Your task to perform on an android device: turn on airplane mode Image 0: 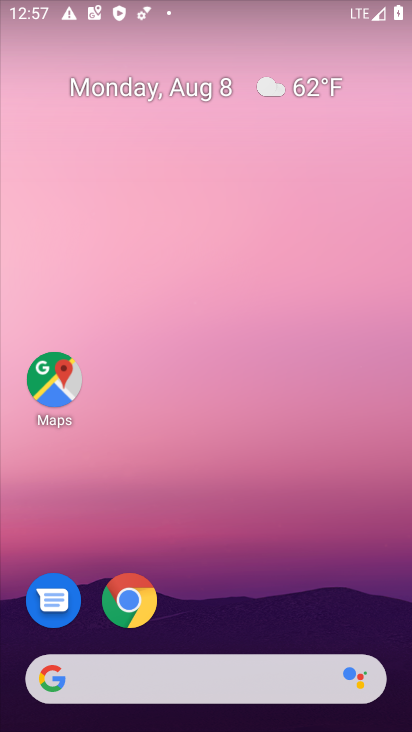
Step 0: drag from (222, 551) to (226, 227)
Your task to perform on an android device: turn on airplane mode Image 1: 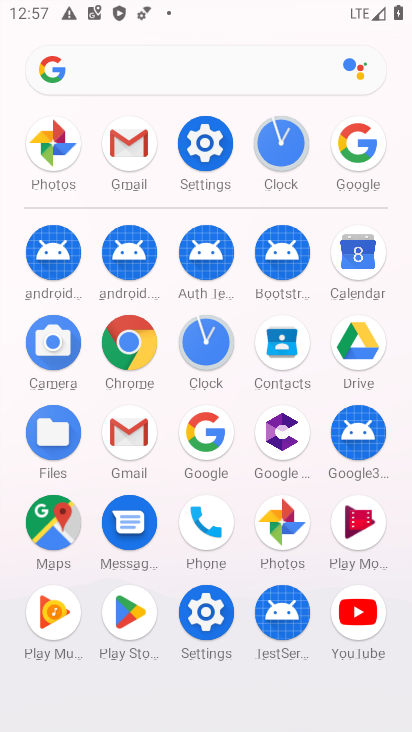
Step 1: click (207, 158)
Your task to perform on an android device: turn on airplane mode Image 2: 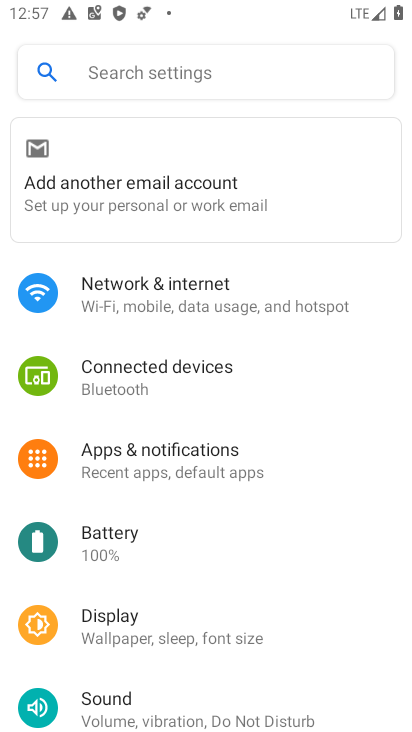
Step 2: click (188, 296)
Your task to perform on an android device: turn on airplane mode Image 3: 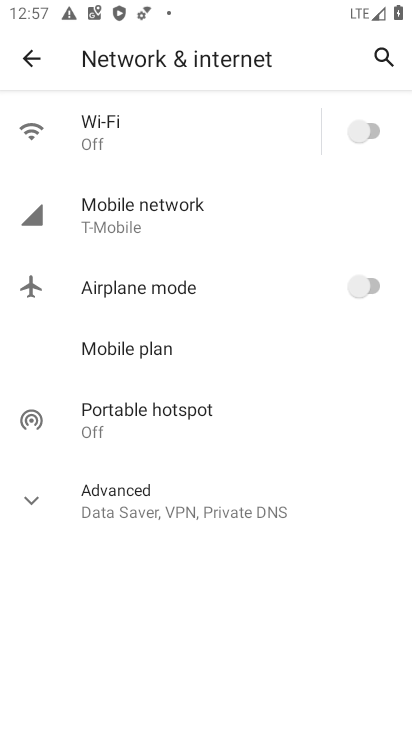
Step 3: click (365, 272)
Your task to perform on an android device: turn on airplane mode Image 4: 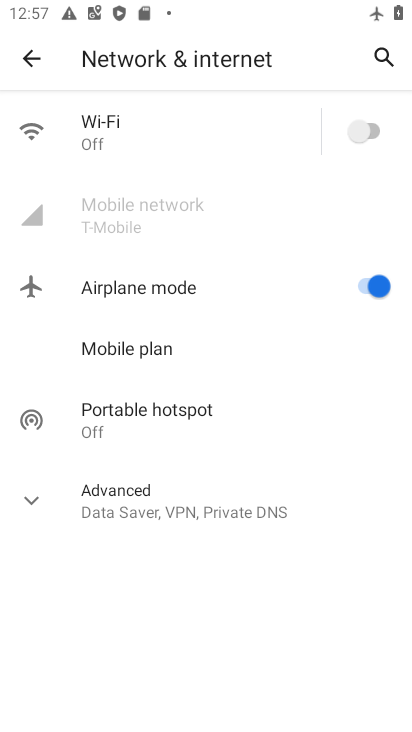
Step 4: task complete